Your task to perform on an android device: Open the calendar app, open the side menu, and click the "Day" option Image 0: 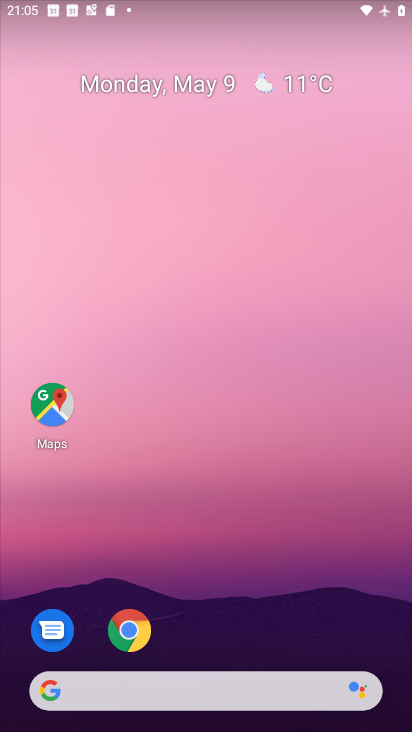
Step 0: drag from (183, 637) to (219, 248)
Your task to perform on an android device: Open the calendar app, open the side menu, and click the "Day" option Image 1: 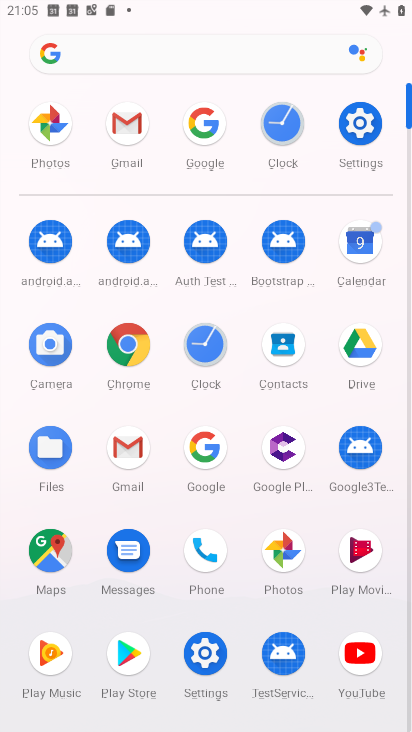
Step 1: click (350, 243)
Your task to perform on an android device: Open the calendar app, open the side menu, and click the "Day" option Image 2: 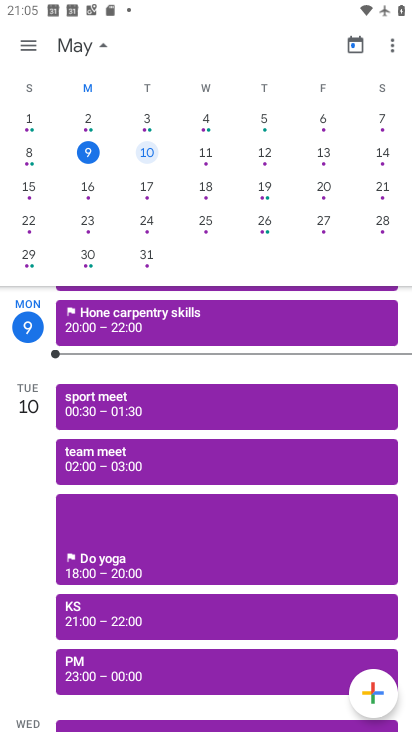
Step 2: click (23, 42)
Your task to perform on an android device: Open the calendar app, open the side menu, and click the "Day" option Image 3: 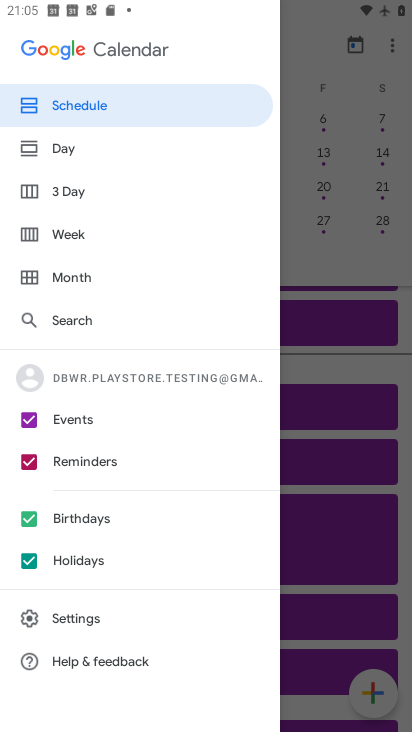
Step 3: click (70, 140)
Your task to perform on an android device: Open the calendar app, open the side menu, and click the "Day" option Image 4: 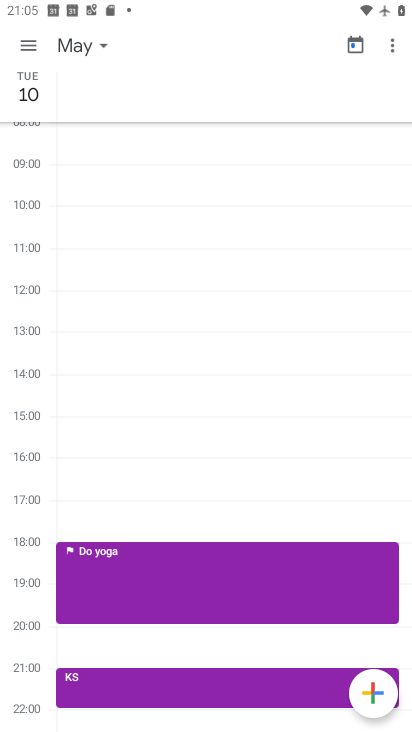
Step 4: task complete